Your task to perform on an android device: turn off javascript in the chrome app Image 0: 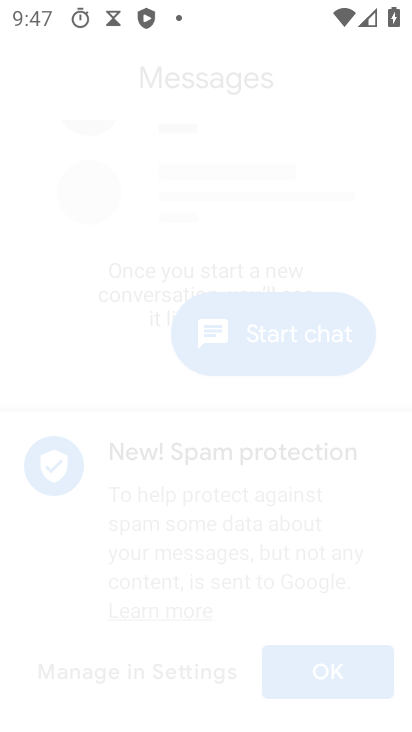
Step 0: click (340, 560)
Your task to perform on an android device: turn off javascript in the chrome app Image 1: 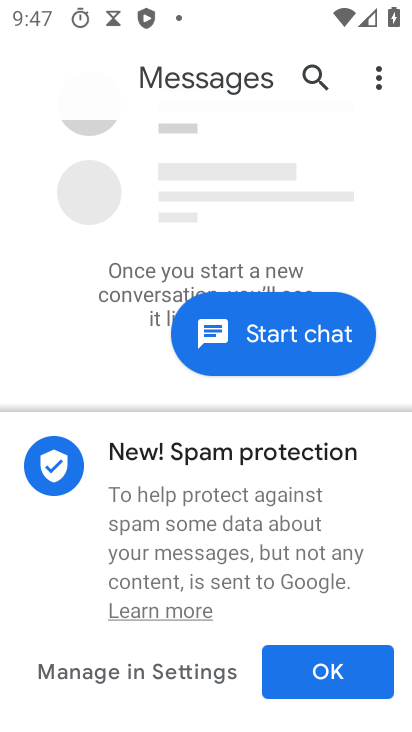
Step 1: click (340, 560)
Your task to perform on an android device: turn off javascript in the chrome app Image 2: 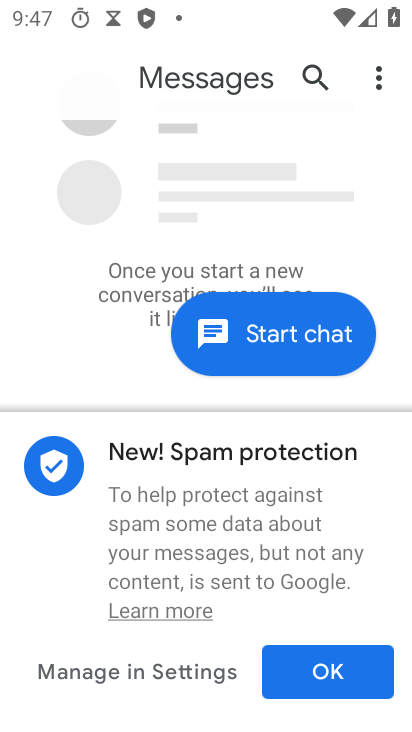
Step 2: press home button
Your task to perform on an android device: turn off javascript in the chrome app Image 3: 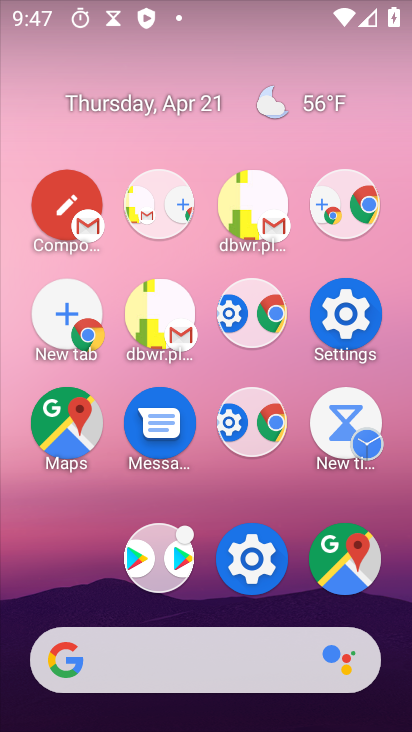
Step 3: drag from (298, 644) to (167, 125)
Your task to perform on an android device: turn off javascript in the chrome app Image 4: 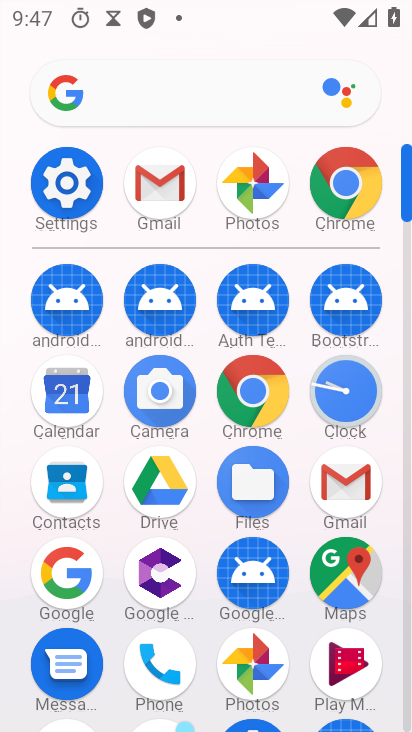
Step 4: click (351, 180)
Your task to perform on an android device: turn off javascript in the chrome app Image 5: 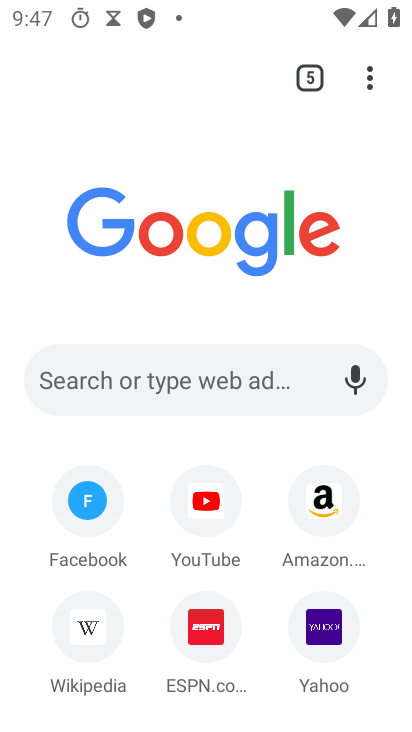
Step 5: click (365, 73)
Your task to perform on an android device: turn off javascript in the chrome app Image 6: 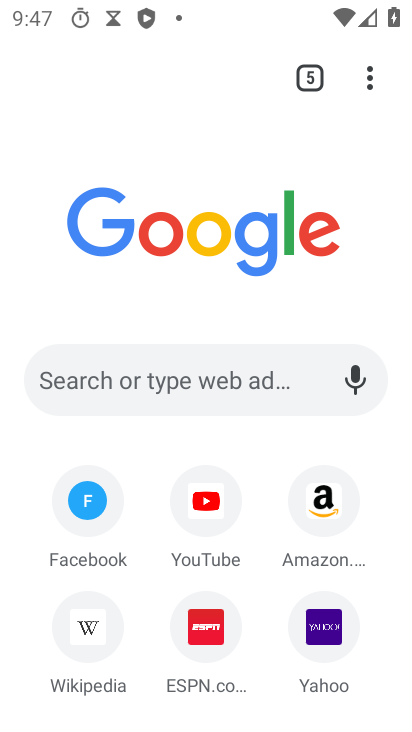
Step 6: drag from (368, 77) to (109, 611)
Your task to perform on an android device: turn off javascript in the chrome app Image 7: 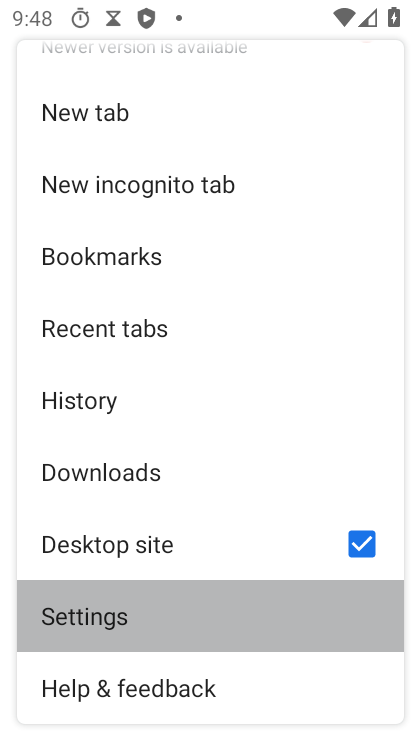
Step 7: click (109, 611)
Your task to perform on an android device: turn off javascript in the chrome app Image 8: 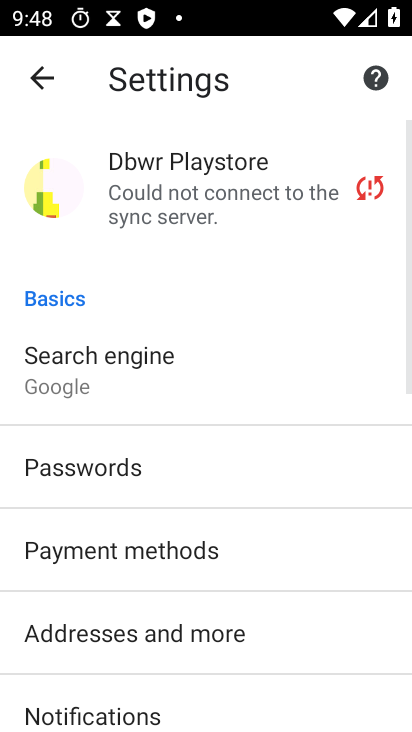
Step 8: drag from (129, 505) to (111, 315)
Your task to perform on an android device: turn off javascript in the chrome app Image 9: 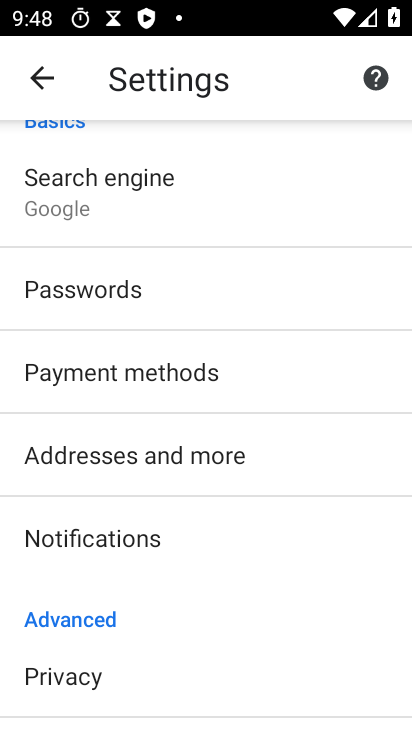
Step 9: drag from (165, 429) to (165, 119)
Your task to perform on an android device: turn off javascript in the chrome app Image 10: 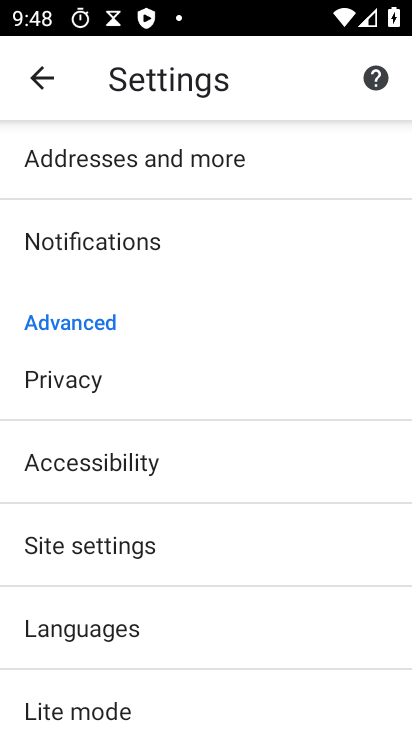
Step 10: click (77, 541)
Your task to perform on an android device: turn off javascript in the chrome app Image 11: 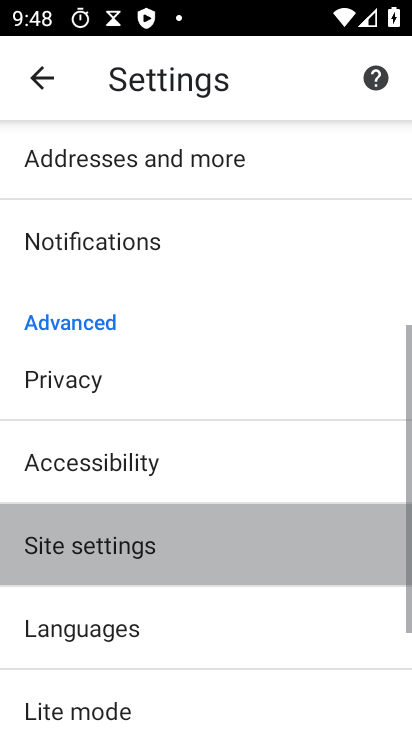
Step 11: click (77, 541)
Your task to perform on an android device: turn off javascript in the chrome app Image 12: 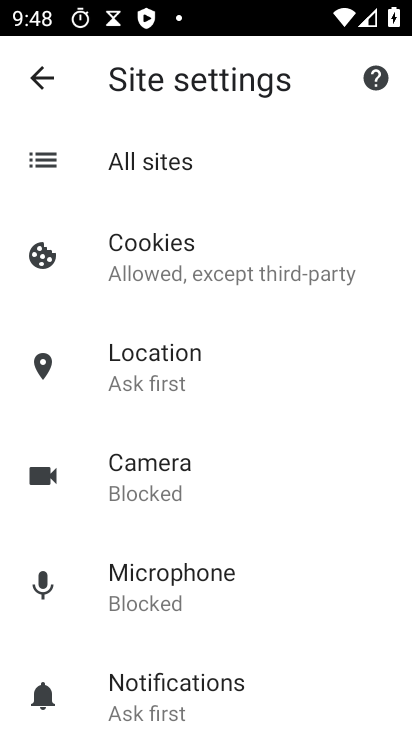
Step 12: drag from (203, 479) to (200, 228)
Your task to perform on an android device: turn off javascript in the chrome app Image 13: 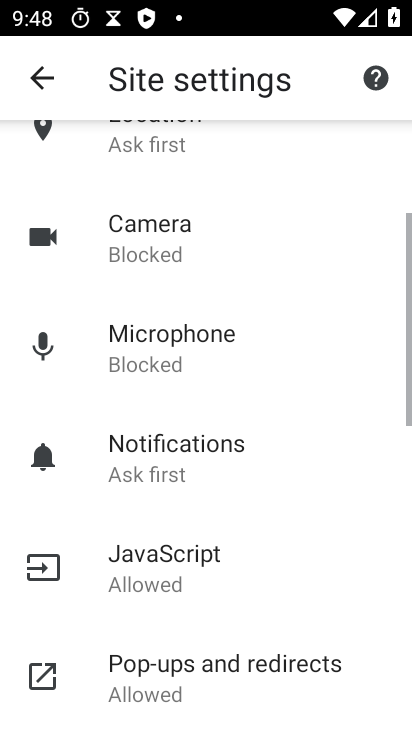
Step 13: drag from (282, 388) to (320, 52)
Your task to perform on an android device: turn off javascript in the chrome app Image 14: 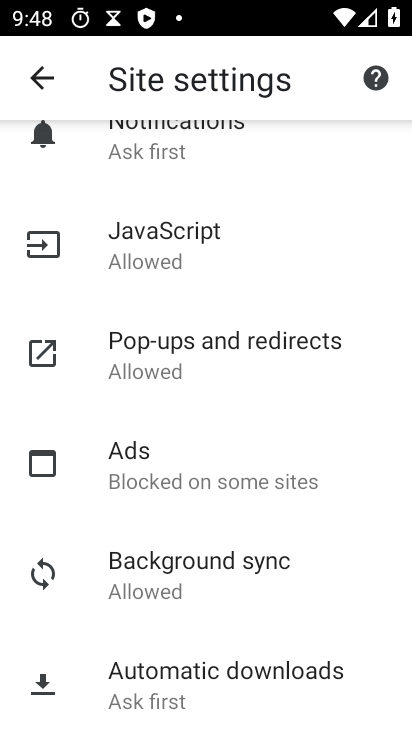
Step 14: click (137, 244)
Your task to perform on an android device: turn off javascript in the chrome app Image 15: 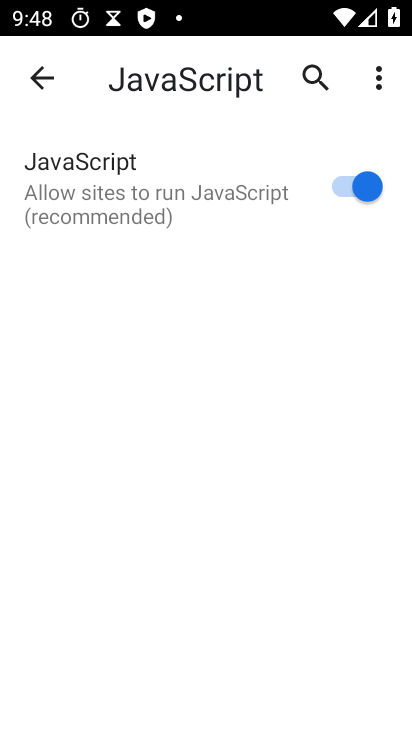
Step 15: click (357, 179)
Your task to perform on an android device: turn off javascript in the chrome app Image 16: 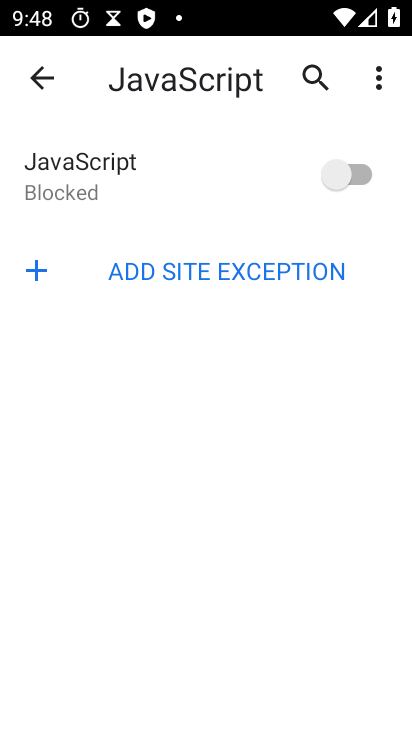
Step 16: task complete